Your task to perform on an android device: stop showing notifications on the lock screen Image 0: 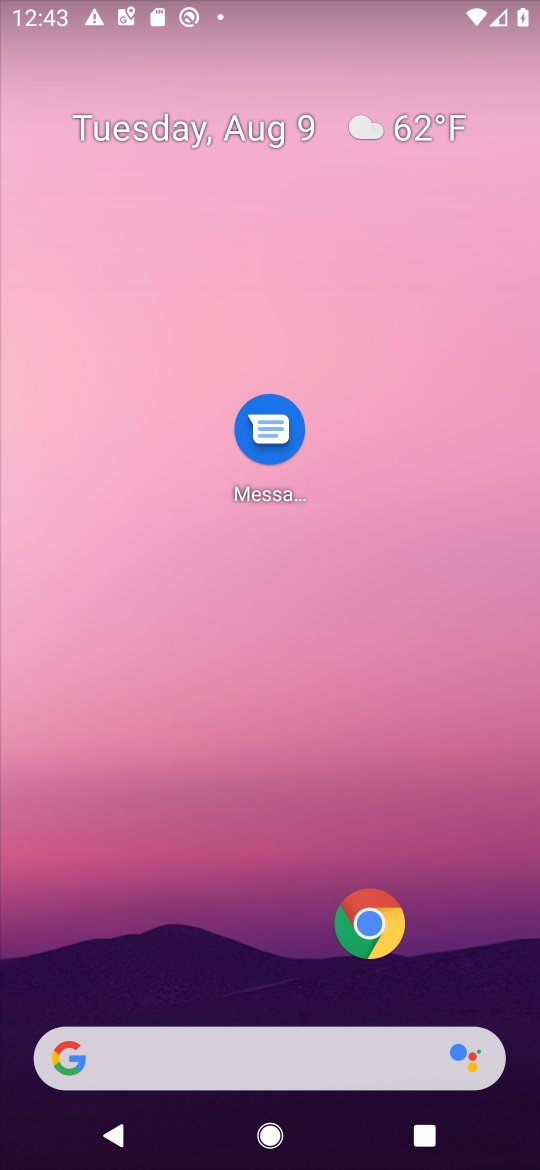
Step 0: drag from (47, 1115) to (307, 273)
Your task to perform on an android device: stop showing notifications on the lock screen Image 1: 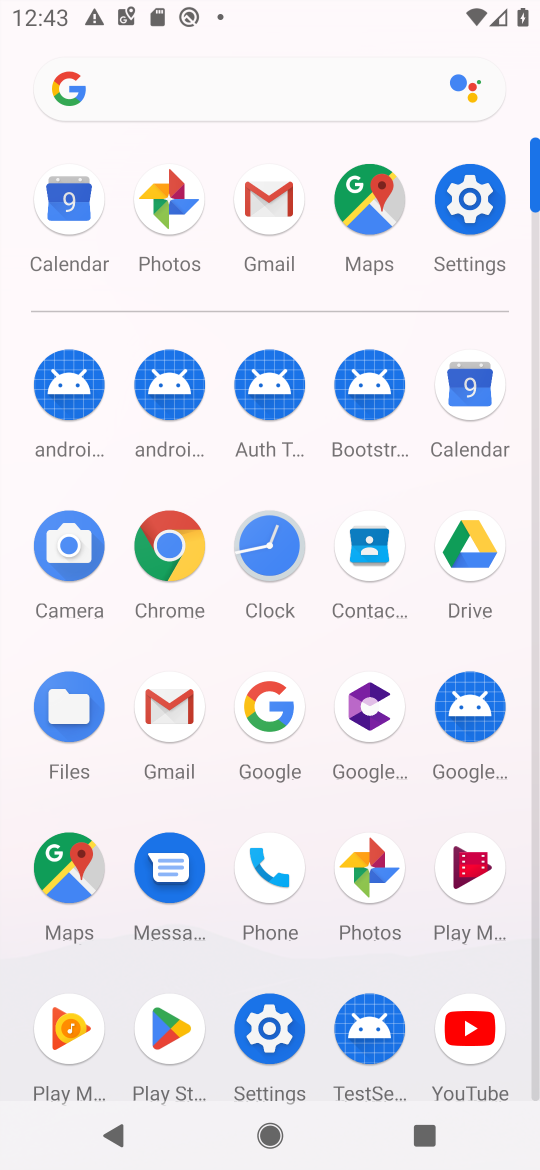
Step 1: click (271, 1034)
Your task to perform on an android device: stop showing notifications on the lock screen Image 2: 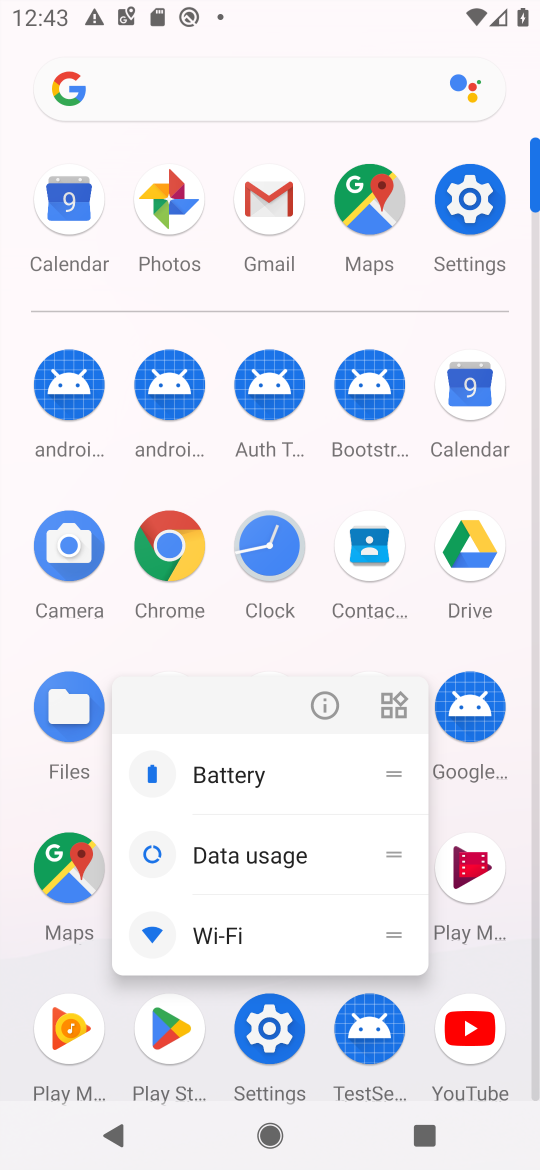
Step 2: click (271, 1034)
Your task to perform on an android device: stop showing notifications on the lock screen Image 3: 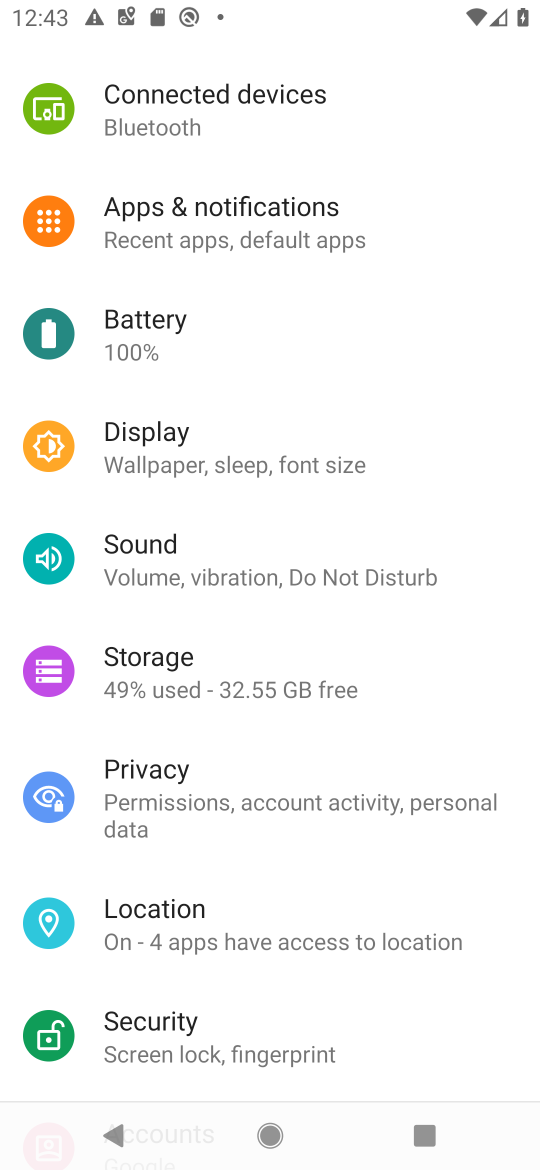
Step 3: click (194, 235)
Your task to perform on an android device: stop showing notifications on the lock screen Image 4: 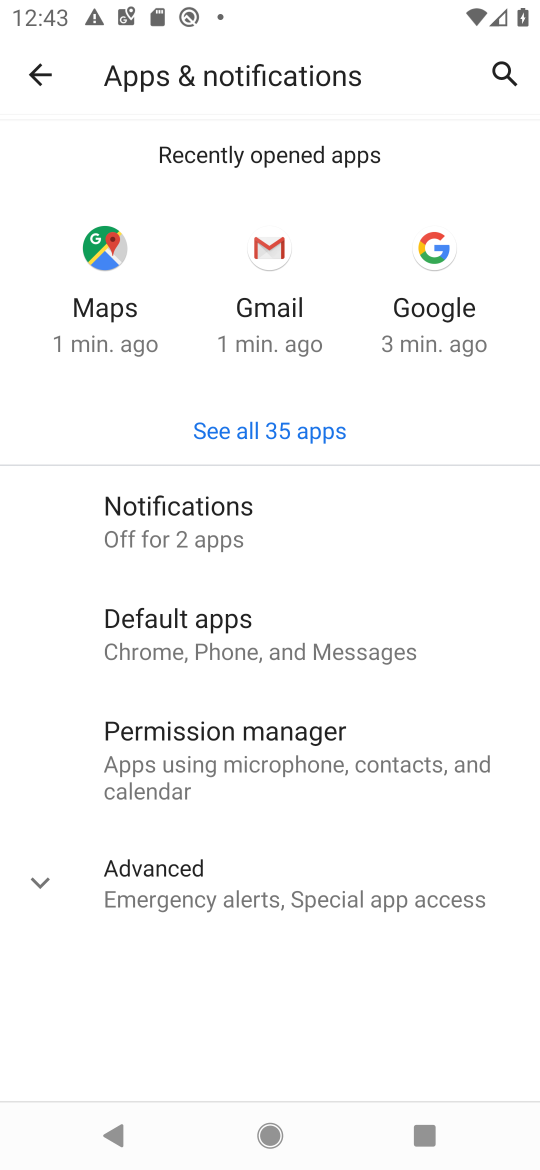
Step 4: click (337, 906)
Your task to perform on an android device: stop showing notifications on the lock screen Image 5: 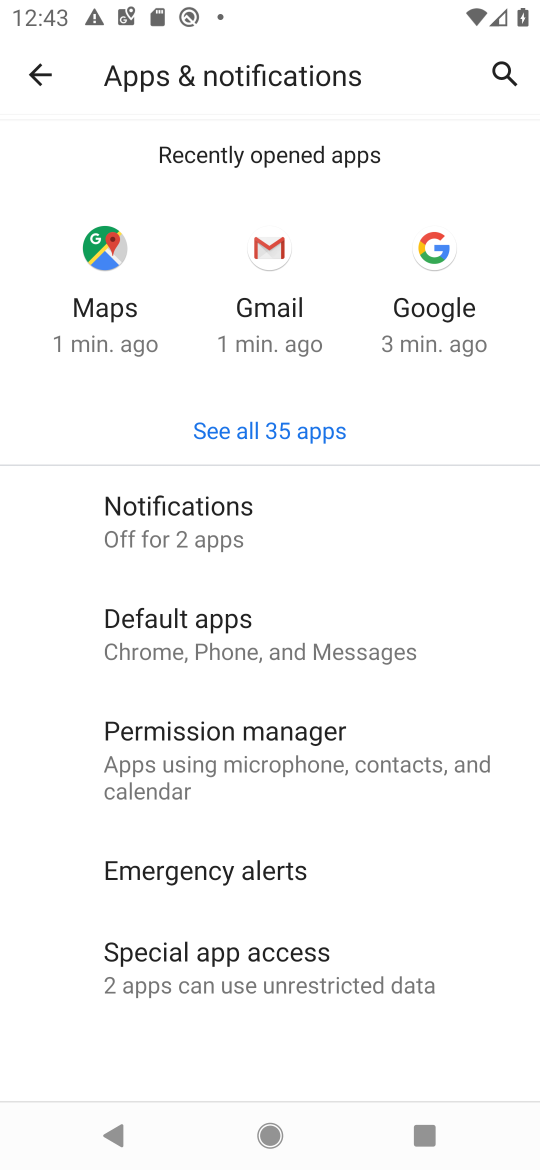
Step 5: click (265, 498)
Your task to perform on an android device: stop showing notifications on the lock screen Image 6: 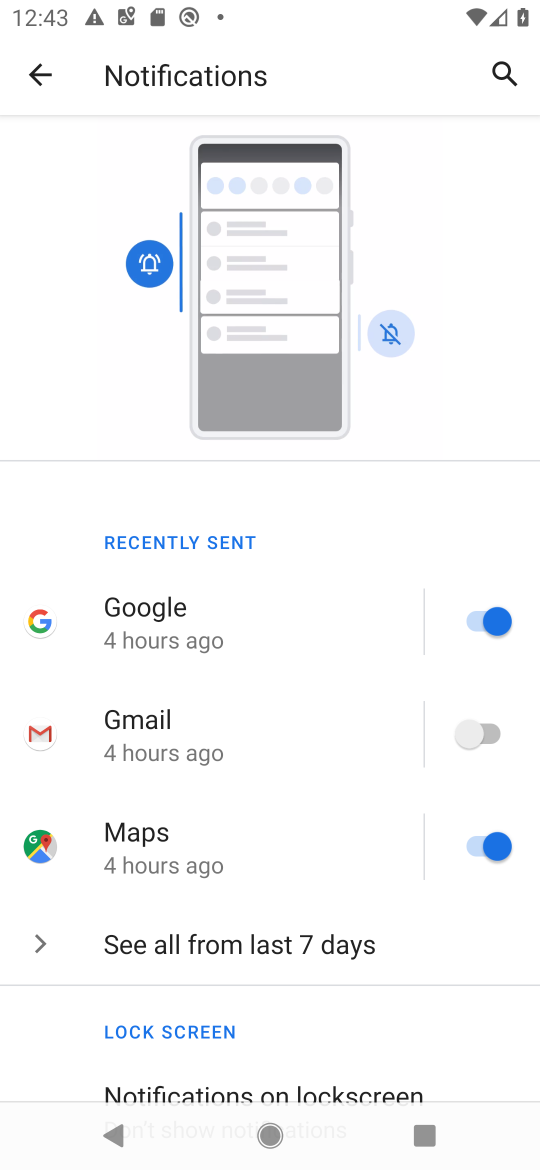
Step 6: click (506, 1043)
Your task to perform on an android device: stop showing notifications on the lock screen Image 7: 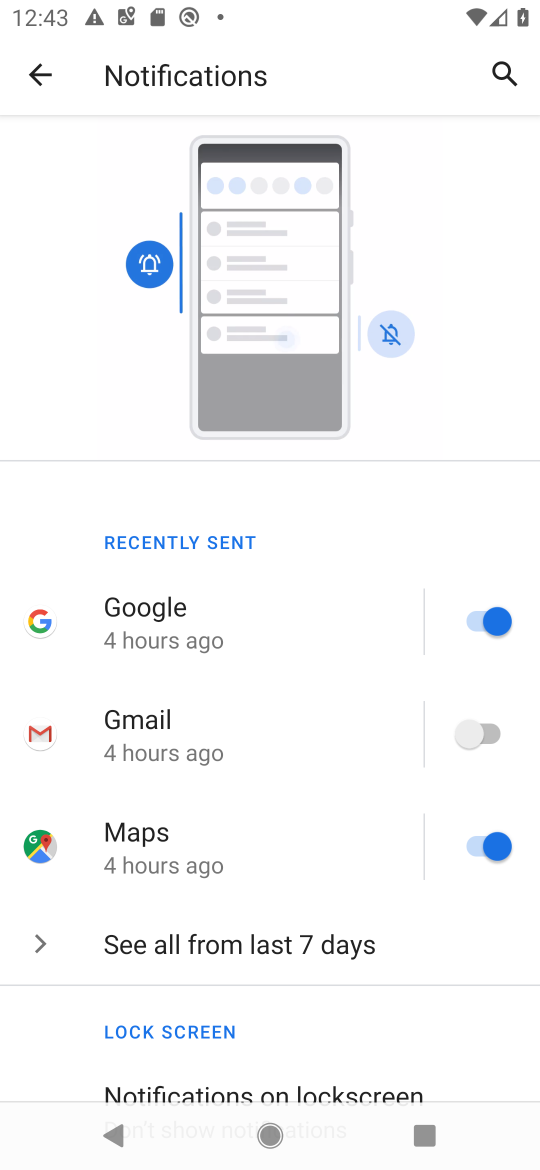
Step 7: drag from (506, 1002) to (474, 663)
Your task to perform on an android device: stop showing notifications on the lock screen Image 8: 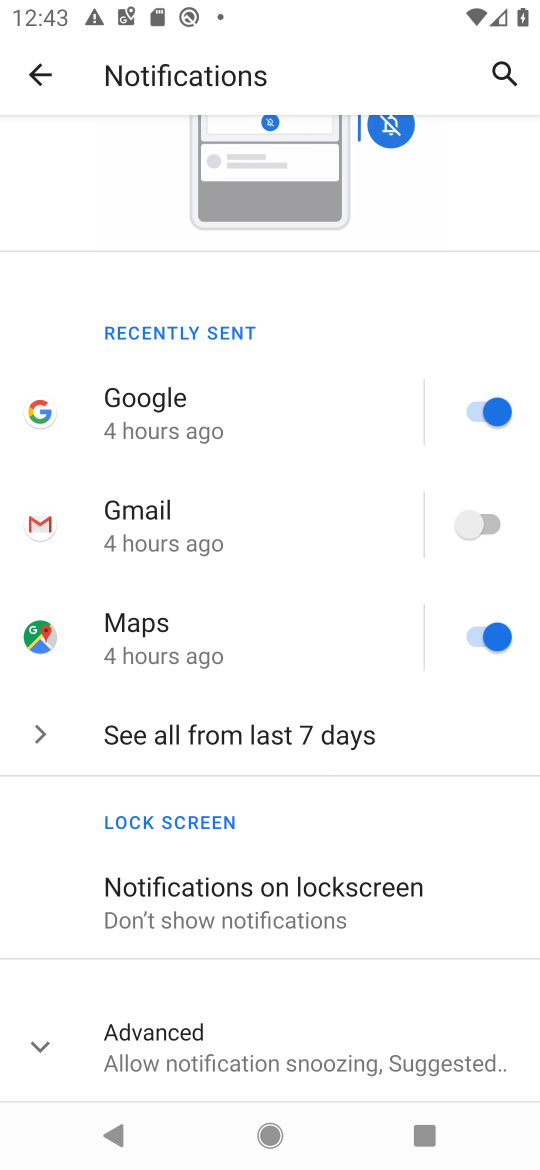
Step 8: click (288, 899)
Your task to perform on an android device: stop showing notifications on the lock screen Image 9: 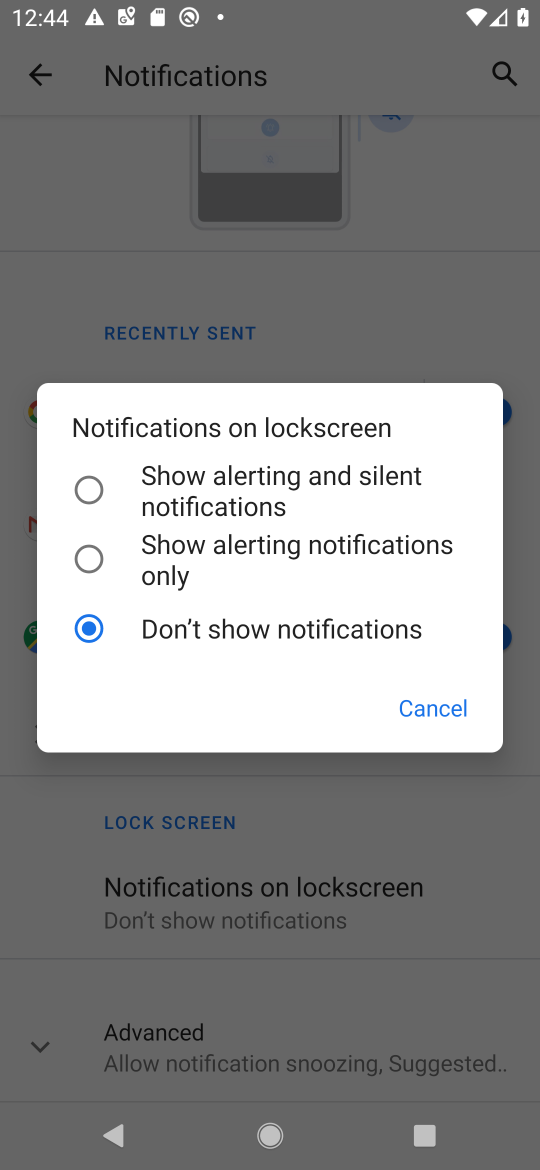
Step 9: task complete